Your task to perform on an android device: star an email in the gmail app Image 0: 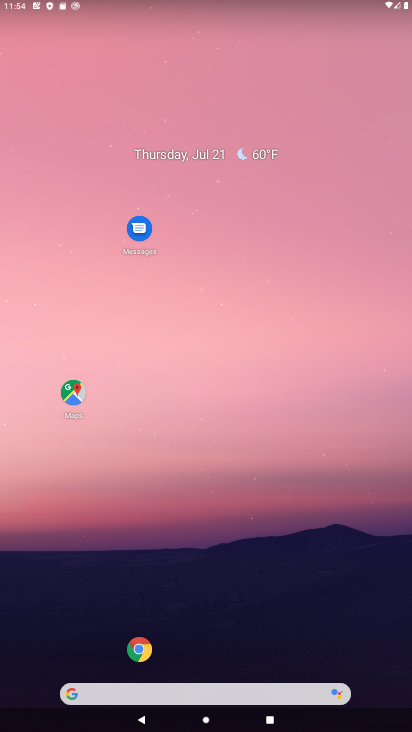
Step 0: drag from (213, 423) to (281, 279)
Your task to perform on an android device: star an email in the gmail app Image 1: 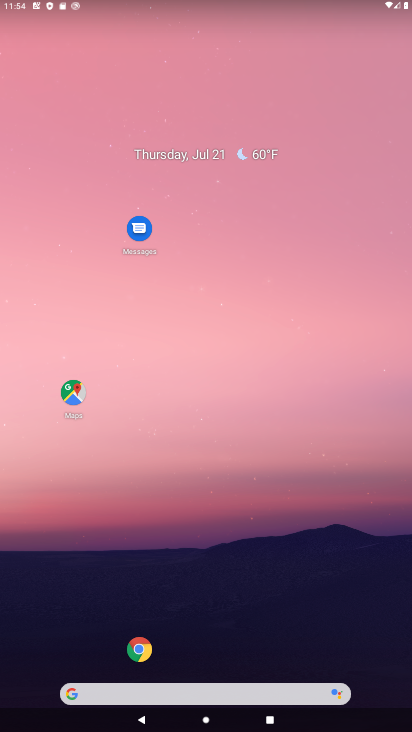
Step 1: drag from (26, 611) to (298, 3)
Your task to perform on an android device: star an email in the gmail app Image 2: 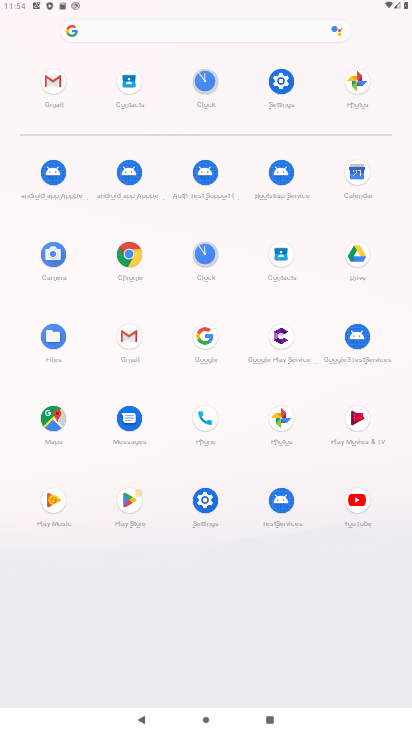
Step 2: click (127, 349)
Your task to perform on an android device: star an email in the gmail app Image 3: 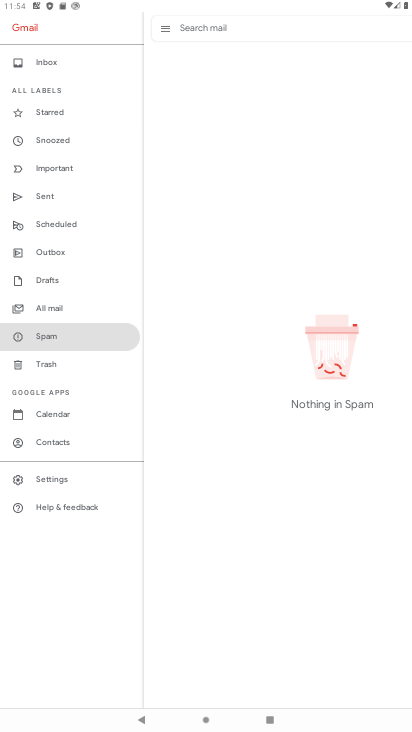
Step 3: click (45, 112)
Your task to perform on an android device: star an email in the gmail app Image 4: 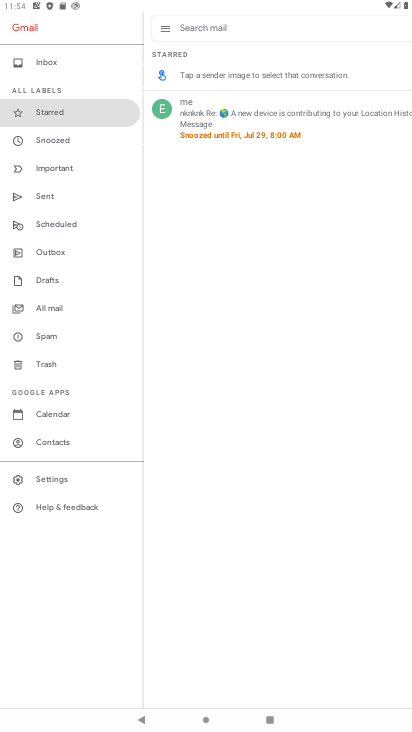
Step 4: task complete